Your task to perform on an android device: show emergency info Image 0: 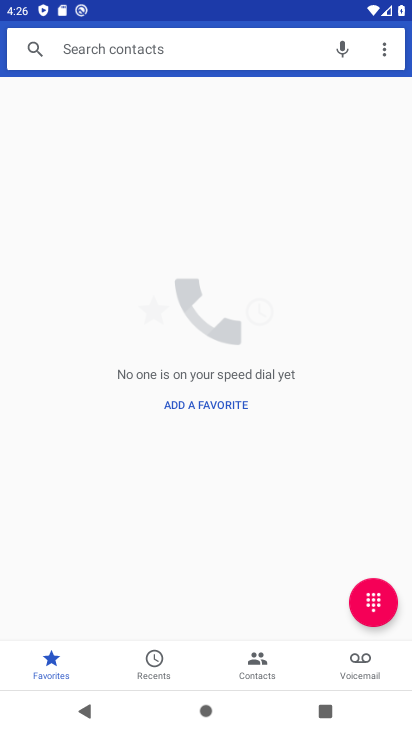
Step 0: press back button
Your task to perform on an android device: show emergency info Image 1: 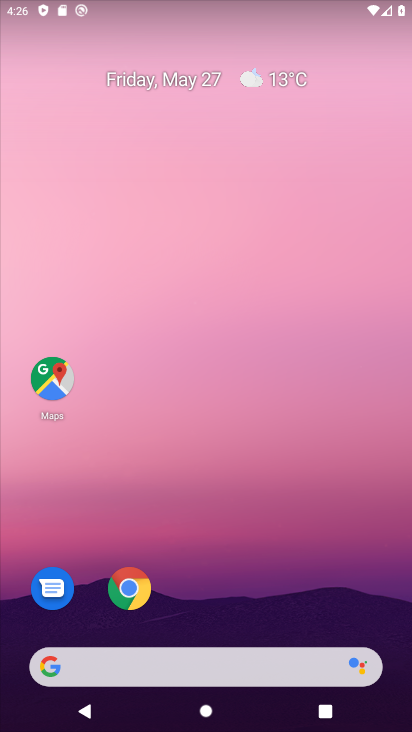
Step 1: drag from (266, 559) to (304, 78)
Your task to perform on an android device: show emergency info Image 2: 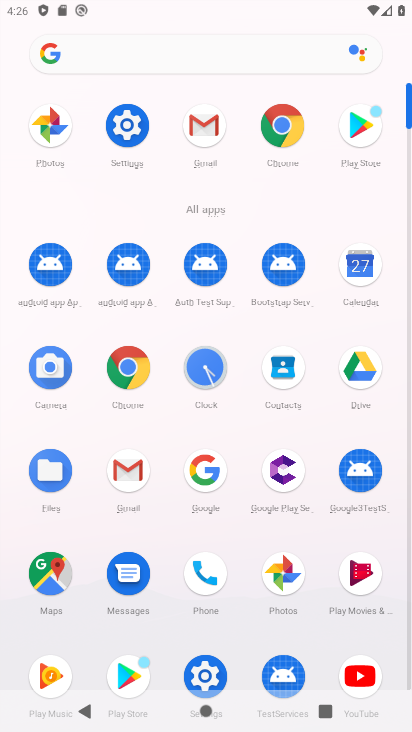
Step 2: click (140, 135)
Your task to perform on an android device: show emergency info Image 3: 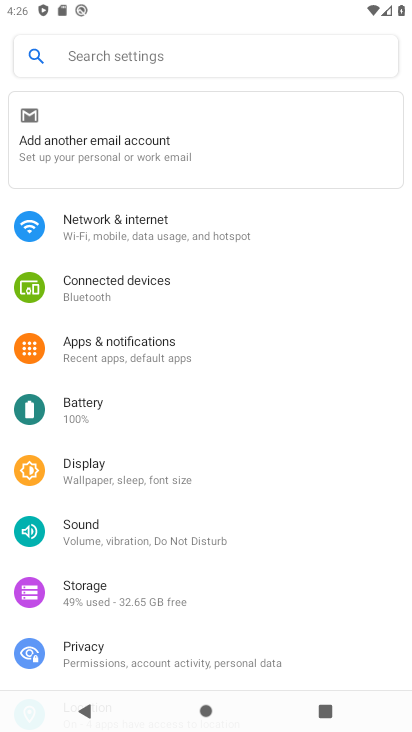
Step 3: drag from (136, 631) to (250, 78)
Your task to perform on an android device: show emergency info Image 4: 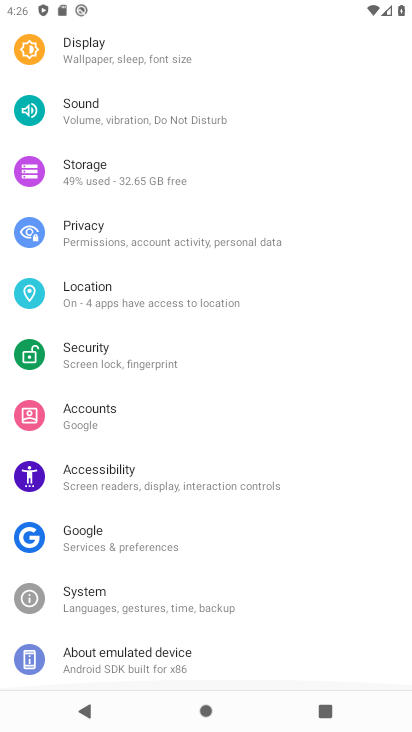
Step 4: drag from (101, 598) to (202, 19)
Your task to perform on an android device: show emergency info Image 5: 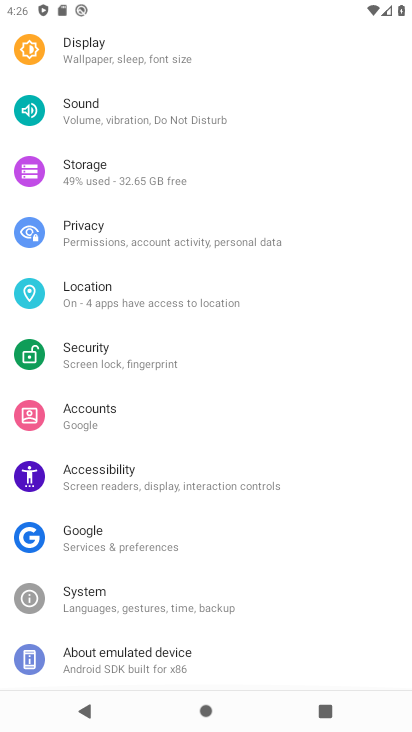
Step 5: click (90, 655)
Your task to perform on an android device: show emergency info Image 6: 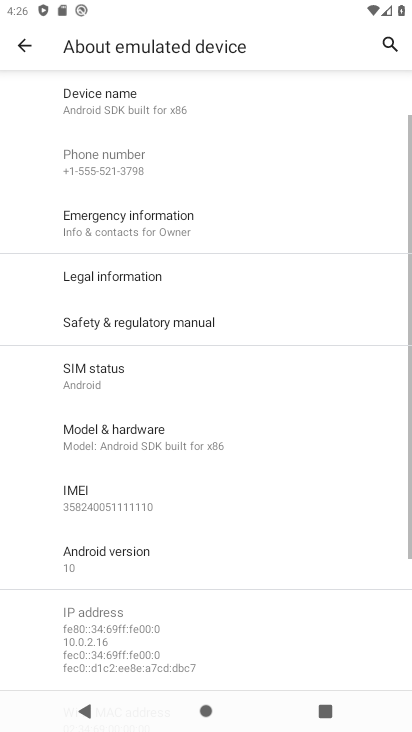
Step 6: click (149, 207)
Your task to perform on an android device: show emergency info Image 7: 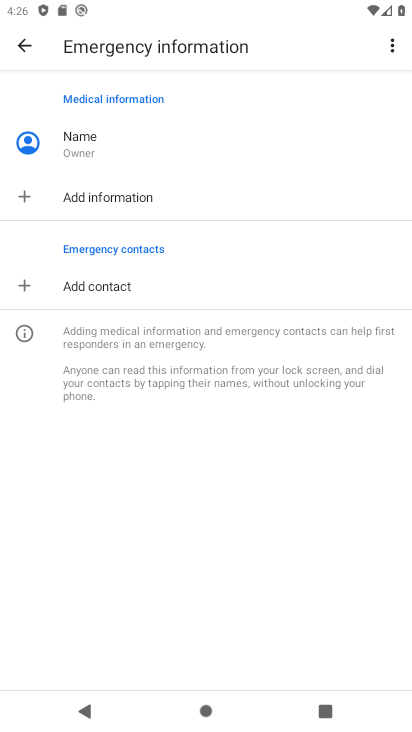
Step 7: task complete